Your task to perform on an android device: set an alarm Image 0: 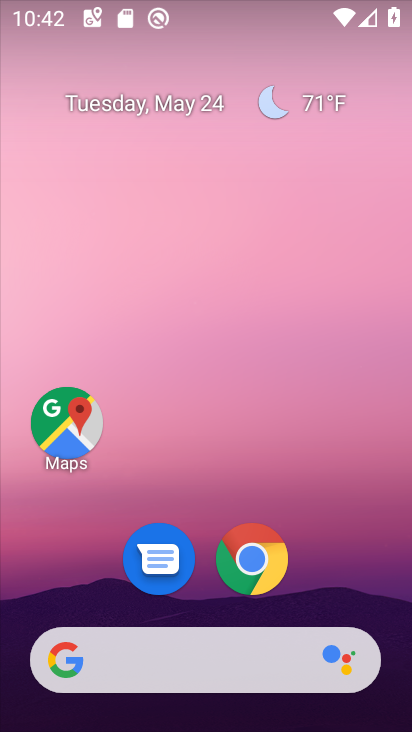
Step 0: drag from (391, 636) to (208, 113)
Your task to perform on an android device: set an alarm Image 1: 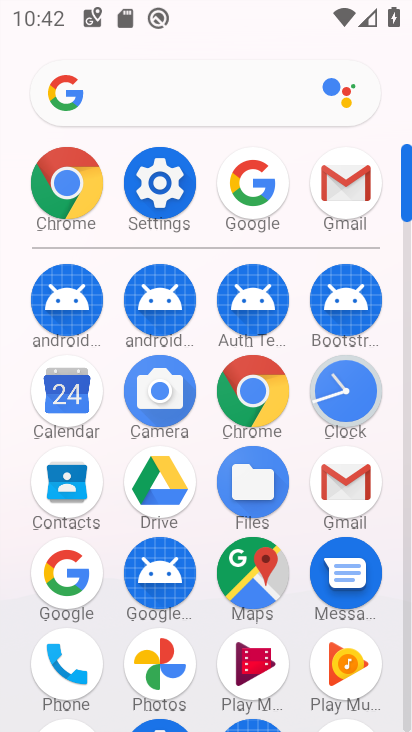
Step 1: click (352, 370)
Your task to perform on an android device: set an alarm Image 2: 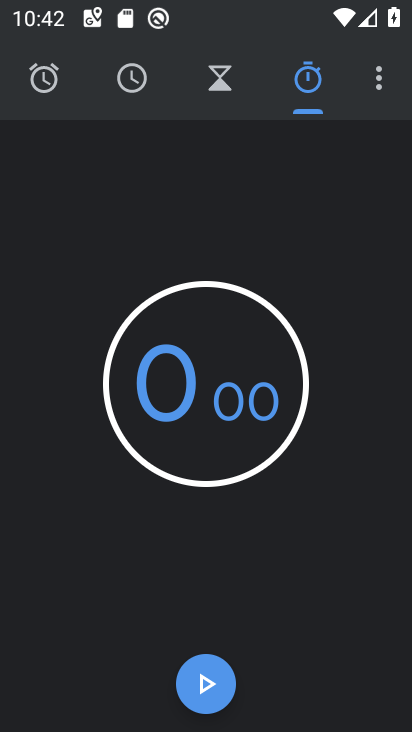
Step 2: click (60, 84)
Your task to perform on an android device: set an alarm Image 3: 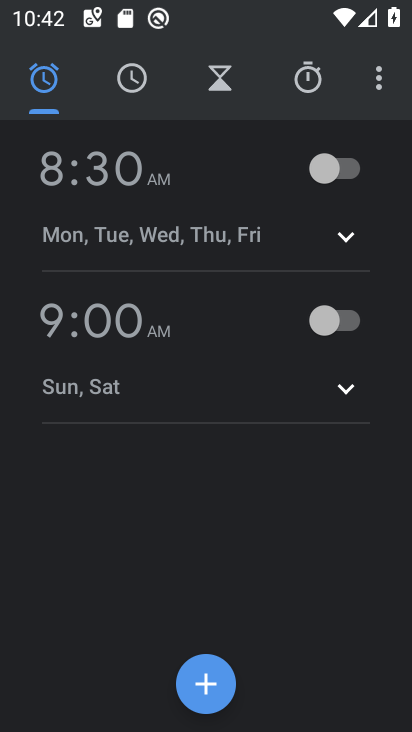
Step 3: click (351, 164)
Your task to perform on an android device: set an alarm Image 4: 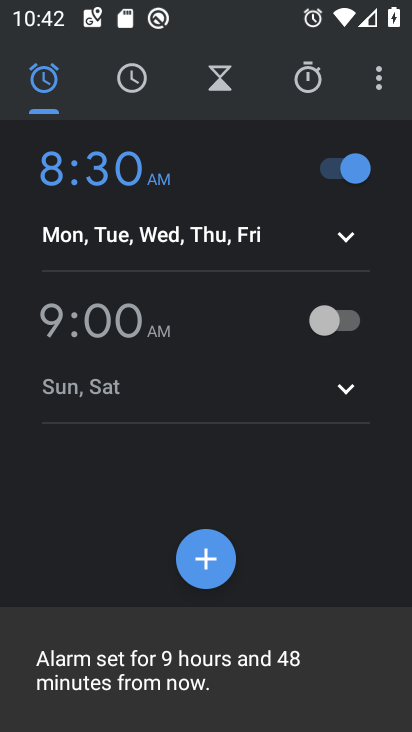
Step 4: task complete